Your task to perform on an android device: Go to privacy settings Image 0: 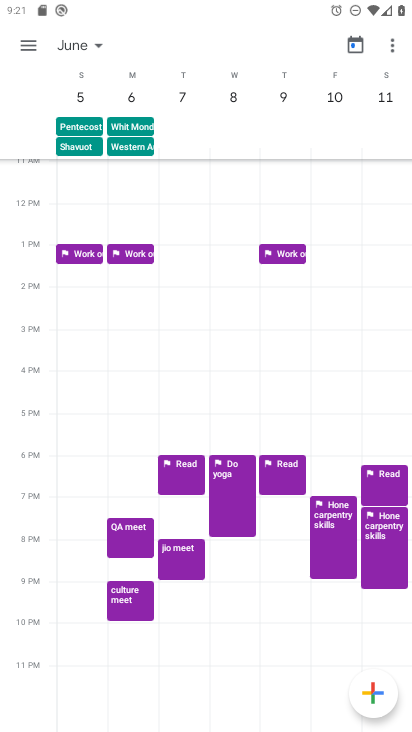
Step 0: press home button
Your task to perform on an android device: Go to privacy settings Image 1: 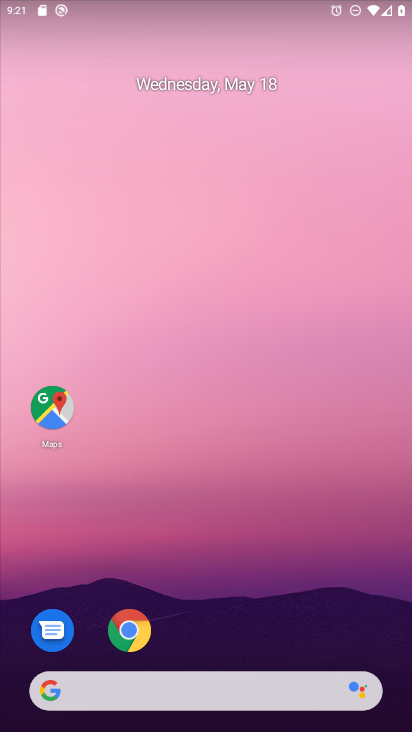
Step 1: drag from (201, 659) to (129, 63)
Your task to perform on an android device: Go to privacy settings Image 2: 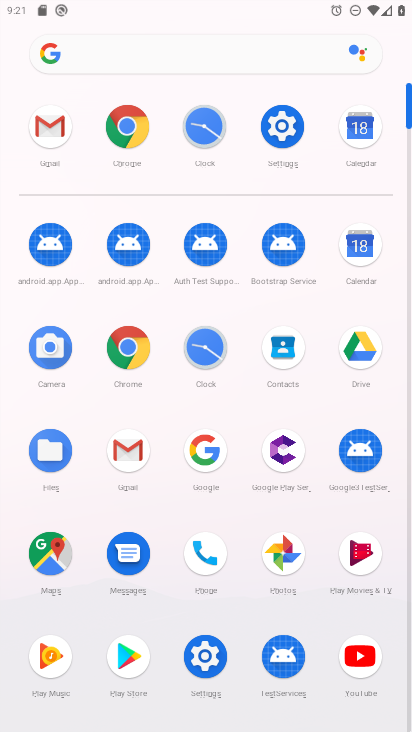
Step 2: click (274, 134)
Your task to perform on an android device: Go to privacy settings Image 3: 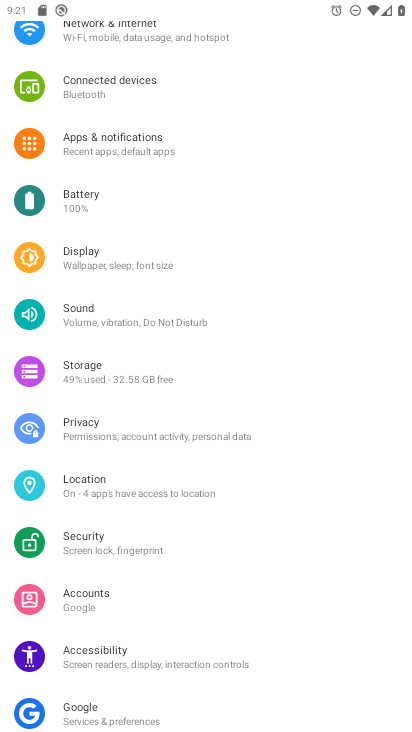
Step 3: click (68, 442)
Your task to perform on an android device: Go to privacy settings Image 4: 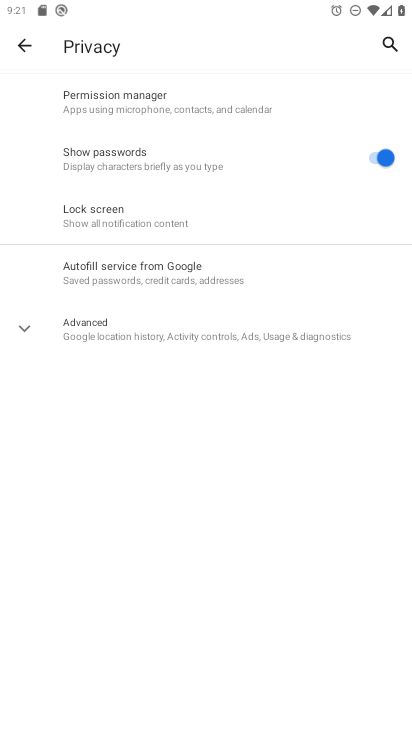
Step 4: click (74, 342)
Your task to perform on an android device: Go to privacy settings Image 5: 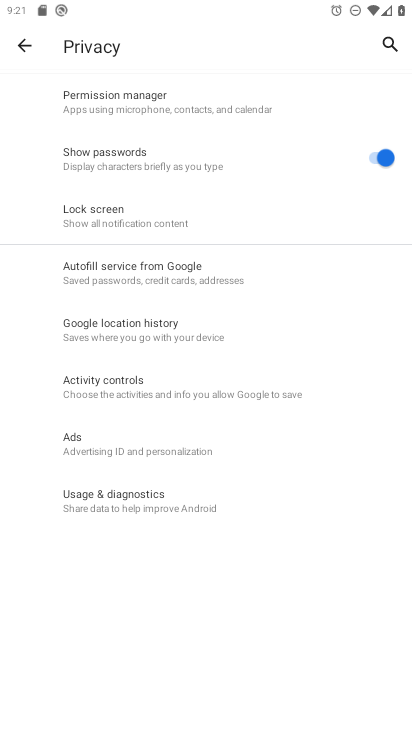
Step 5: task complete